Your task to perform on an android device: Go to notification settings Image 0: 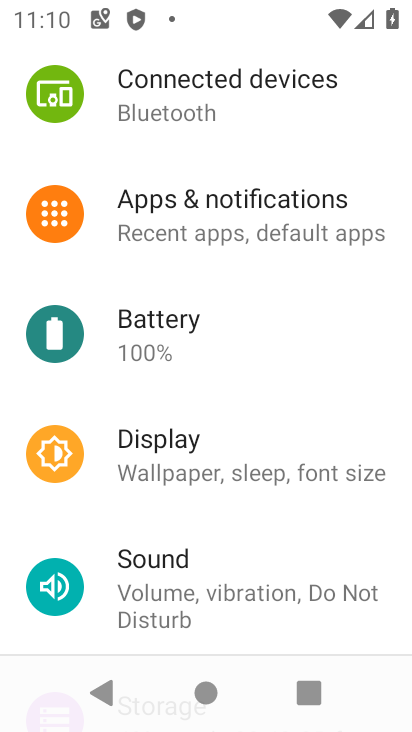
Step 0: press home button
Your task to perform on an android device: Go to notification settings Image 1: 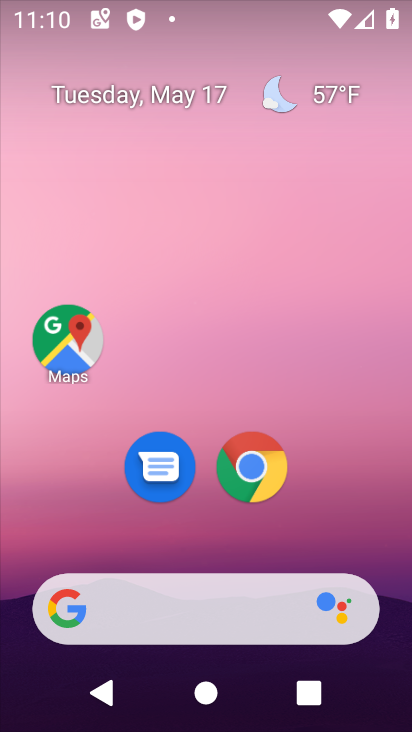
Step 1: drag from (241, 647) to (280, 110)
Your task to perform on an android device: Go to notification settings Image 2: 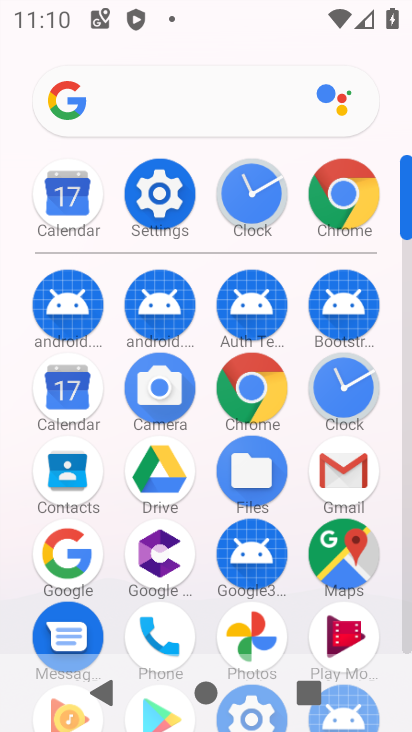
Step 2: click (151, 202)
Your task to perform on an android device: Go to notification settings Image 3: 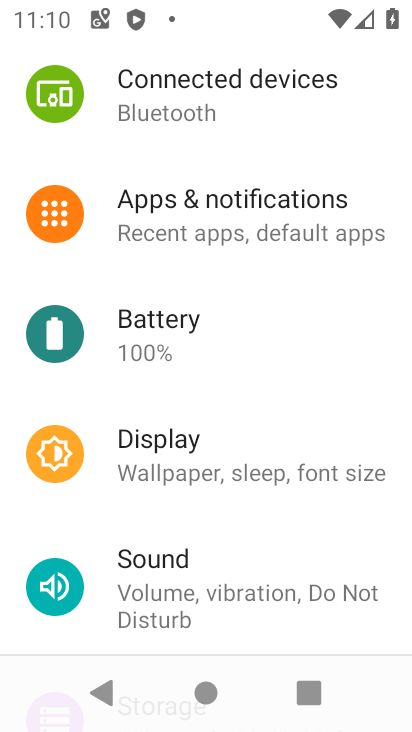
Step 3: drag from (142, 275) to (152, 529)
Your task to perform on an android device: Go to notification settings Image 4: 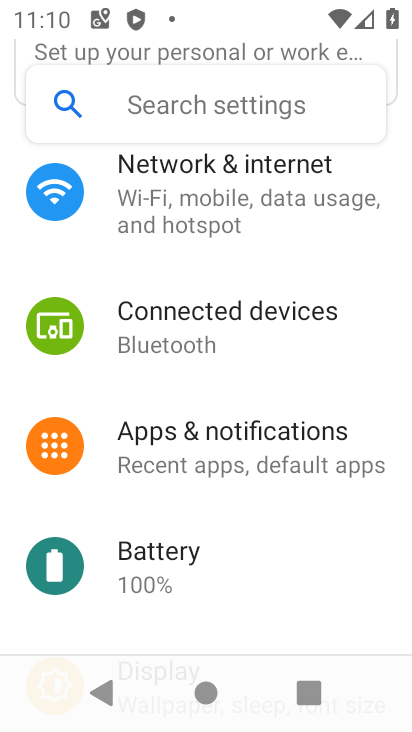
Step 4: click (167, 124)
Your task to perform on an android device: Go to notification settings Image 5: 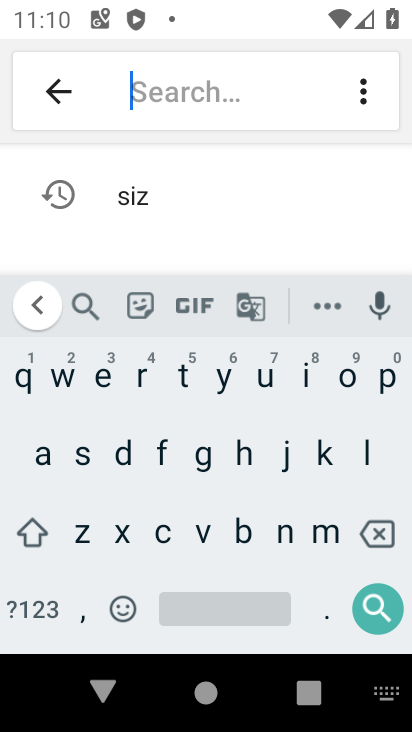
Step 5: click (283, 538)
Your task to perform on an android device: Go to notification settings Image 6: 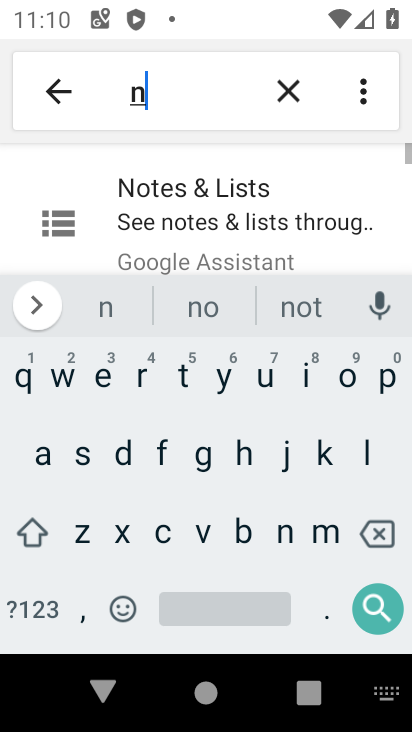
Step 6: click (350, 379)
Your task to perform on an android device: Go to notification settings Image 7: 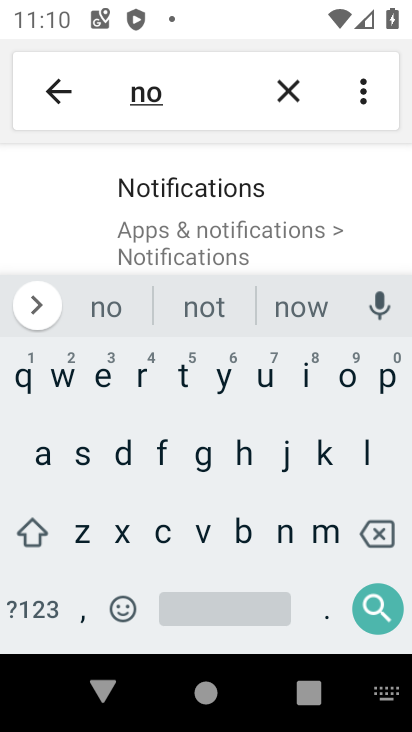
Step 7: click (136, 202)
Your task to perform on an android device: Go to notification settings Image 8: 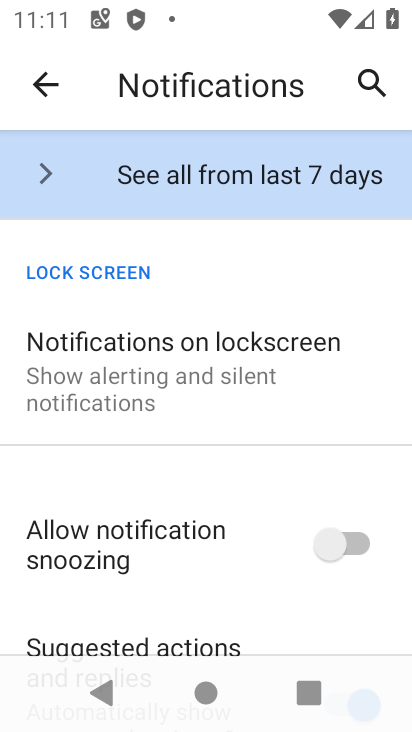
Step 8: click (128, 356)
Your task to perform on an android device: Go to notification settings Image 9: 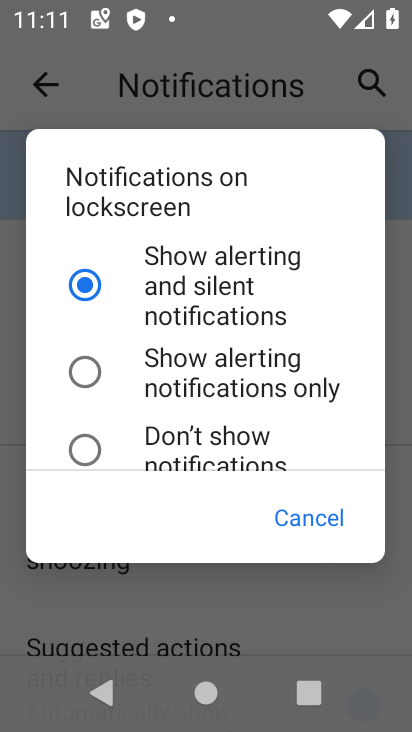
Step 9: task complete